Your task to perform on an android device: turn off improve location accuracy Image 0: 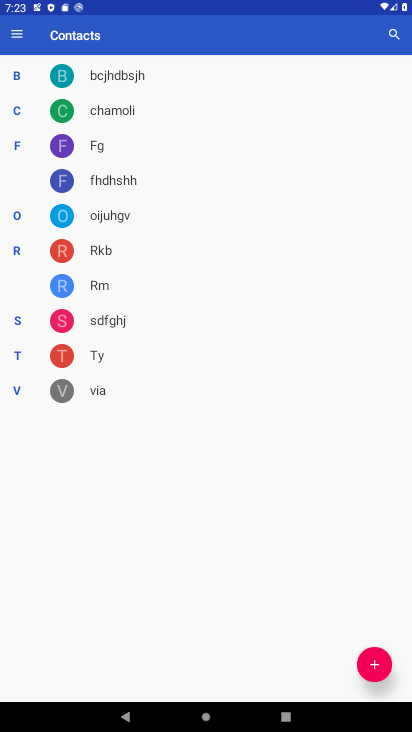
Step 0: press home button
Your task to perform on an android device: turn off improve location accuracy Image 1: 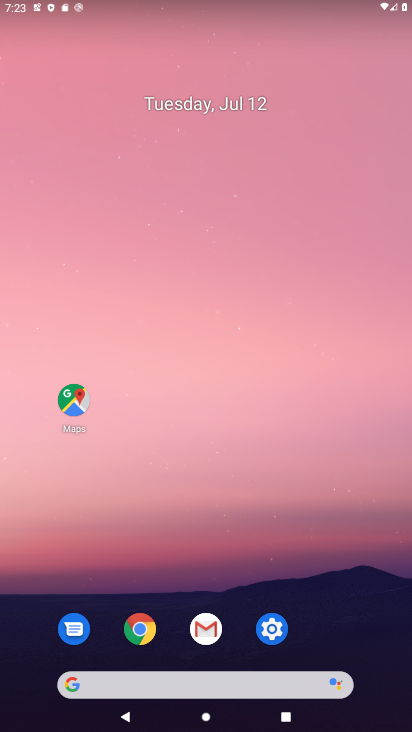
Step 1: click (264, 632)
Your task to perform on an android device: turn off improve location accuracy Image 2: 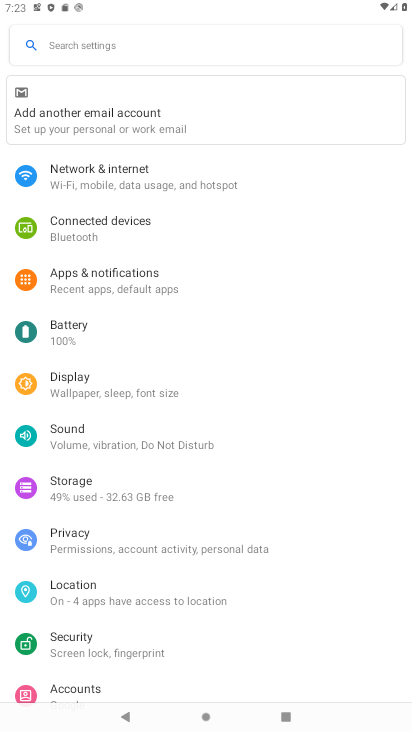
Step 2: click (79, 594)
Your task to perform on an android device: turn off improve location accuracy Image 3: 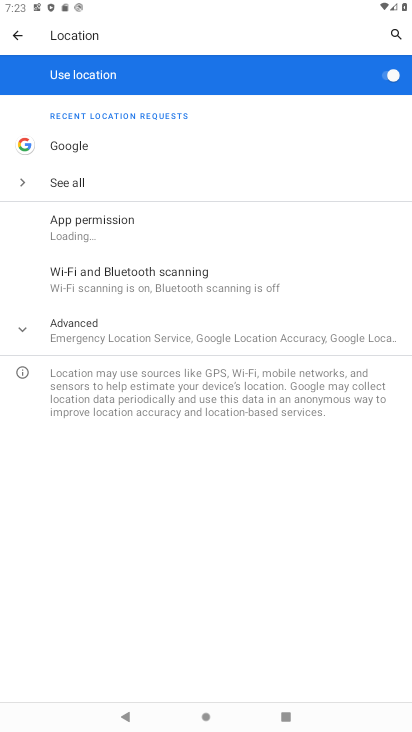
Step 3: click (52, 330)
Your task to perform on an android device: turn off improve location accuracy Image 4: 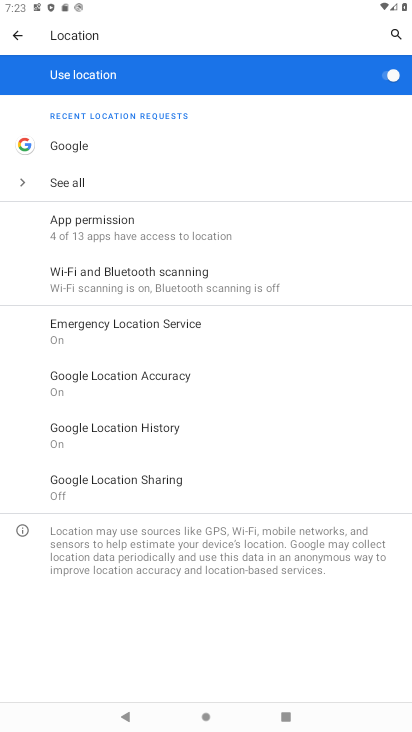
Step 4: click (115, 379)
Your task to perform on an android device: turn off improve location accuracy Image 5: 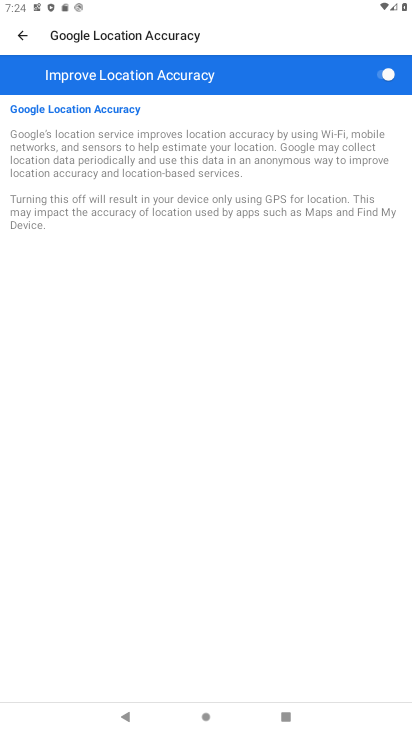
Step 5: click (378, 77)
Your task to perform on an android device: turn off improve location accuracy Image 6: 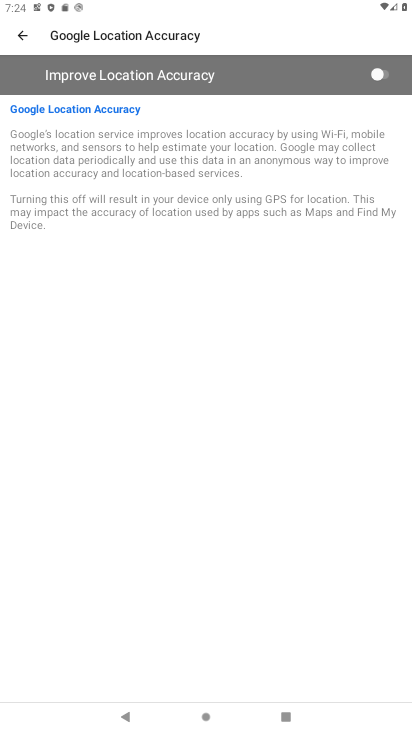
Step 6: click (378, 77)
Your task to perform on an android device: turn off improve location accuracy Image 7: 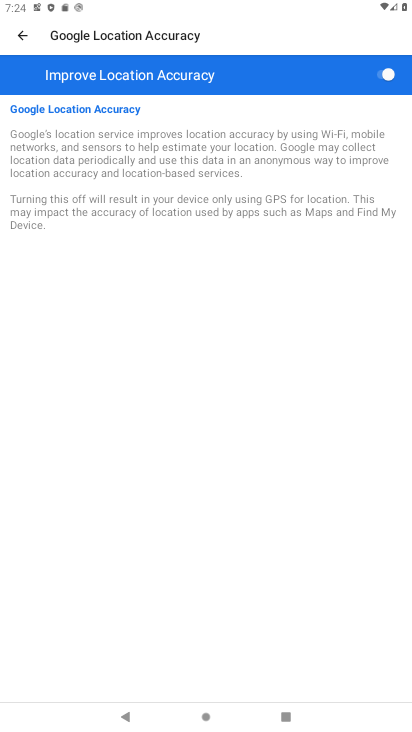
Step 7: click (382, 86)
Your task to perform on an android device: turn off improve location accuracy Image 8: 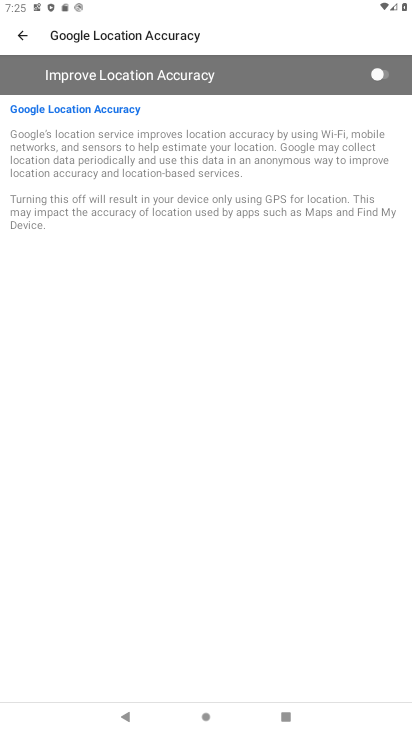
Step 8: task complete